Your task to perform on an android device: manage bookmarks in the chrome app Image 0: 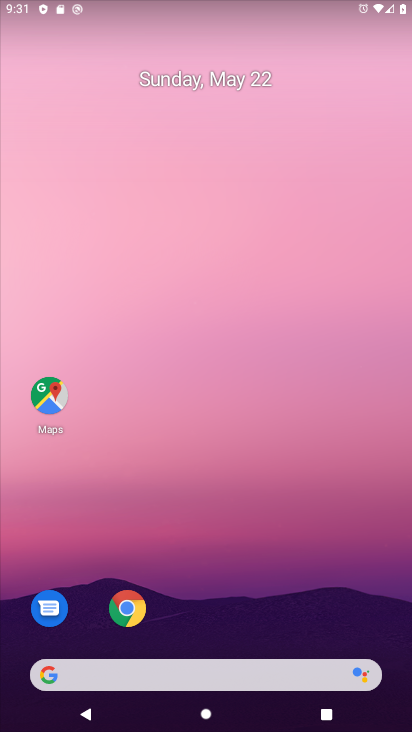
Step 0: drag from (242, 451) to (236, 18)
Your task to perform on an android device: manage bookmarks in the chrome app Image 1: 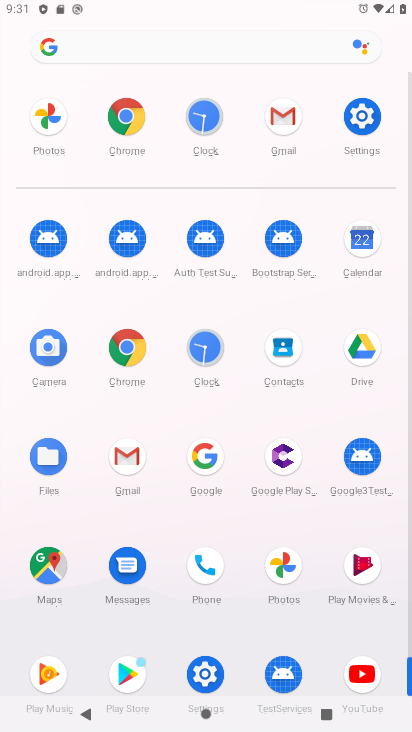
Step 1: drag from (7, 583) to (18, 213)
Your task to perform on an android device: manage bookmarks in the chrome app Image 2: 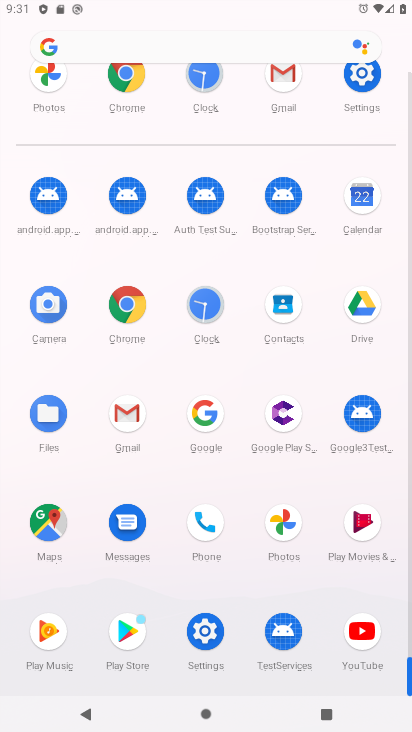
Step 2: click (124, 300)
Your task to perform on an android device: manage bookmarks in the chrome app Image 3: 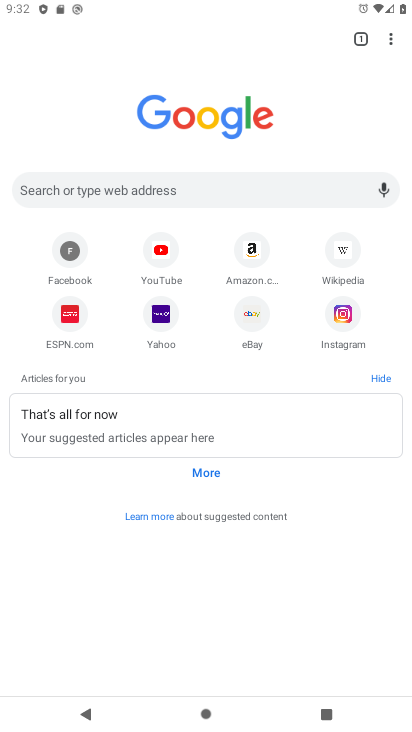
Step 3: drag from (392, 40) to (292, 141)
Your task to perform on an android device: manage bookmarks in the chrome app Image 4: 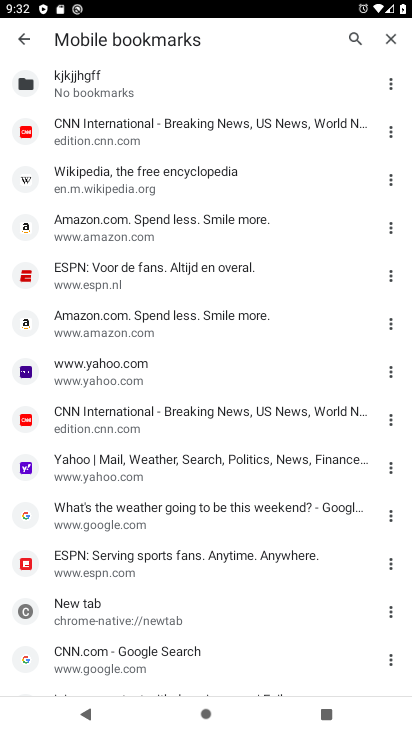
Step 4: drag from (384, 79) to (369, 149)
Your task to perform on an android device: manage bookmarks in the chrome app Image 5: 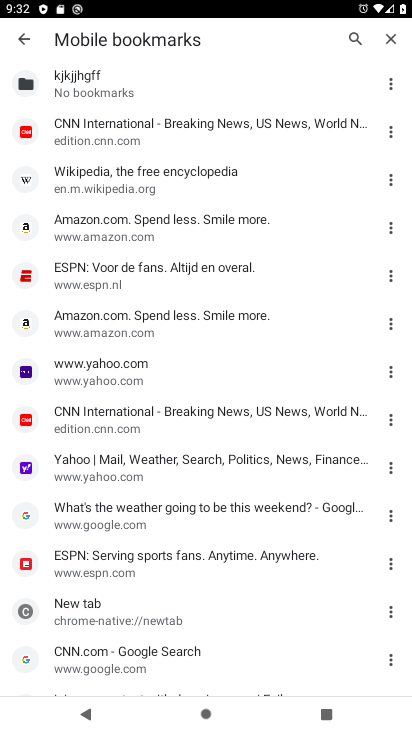
Step 5: click (386, 78)
Your task to perform on an android device: manage bookmarks in the chrome app Image 6: 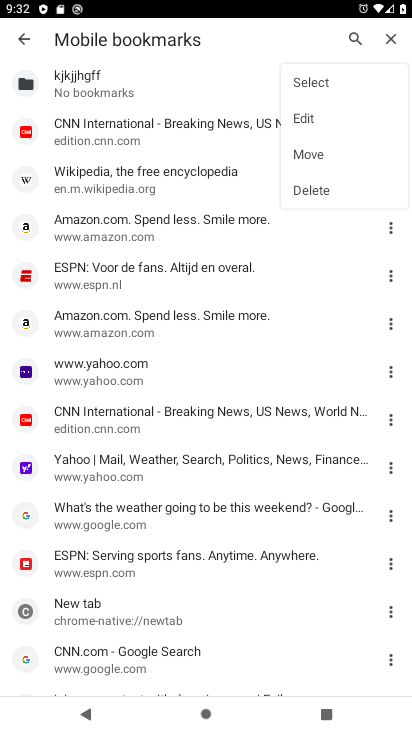
Step 6: click (334, 186)
Your task to perform on an android device: manage bookmarks in the chrome app Image 7: 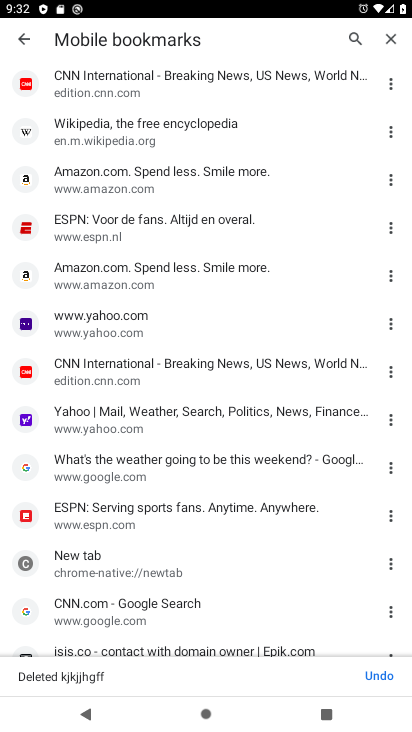
Step 7: click (388, 470)
Your task to perform on an android device: manage bookmarks in the chrome app Image 8: 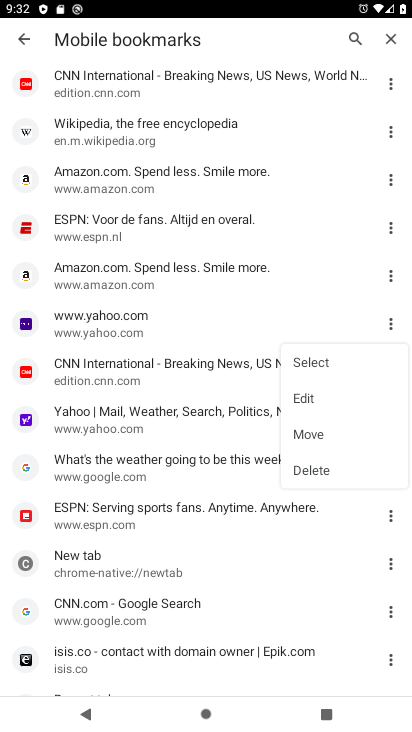
Step 8: click (319, 473)
Your task to perform on an android device: manage bookmarks in the chrome app Image 9: 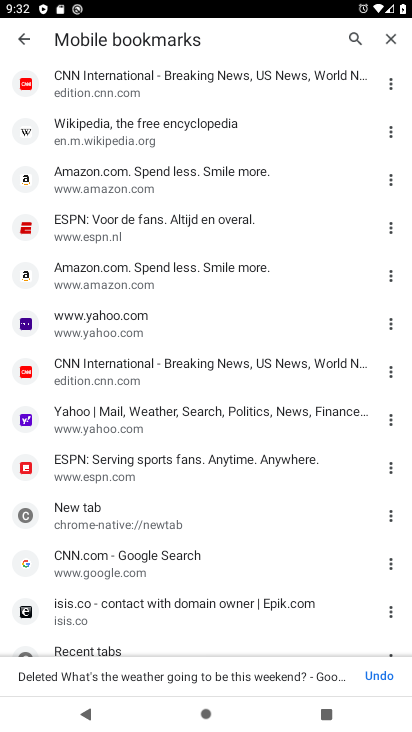
Step 9: click (400, 566)
Your task to perform on an android device: manage bookmarks in the chrome app Image 10: 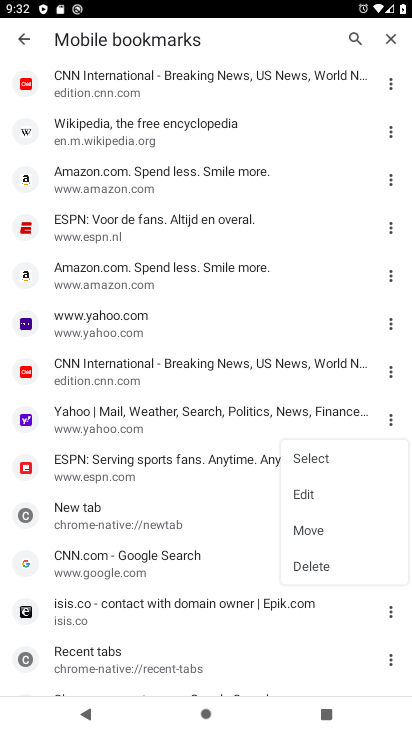
Step 10: click (360, 566)
Your task to perform on an android device: manage bookmarks in the chrome app Image 11: 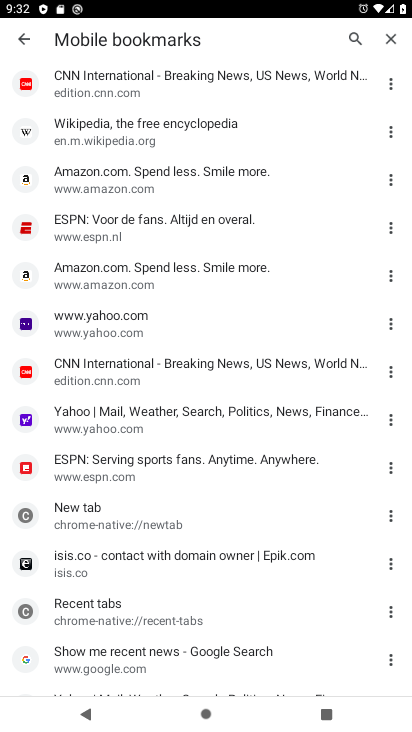
Step 11: task complete